Your task to perform on an android device: Open accessibility settings Image 0: 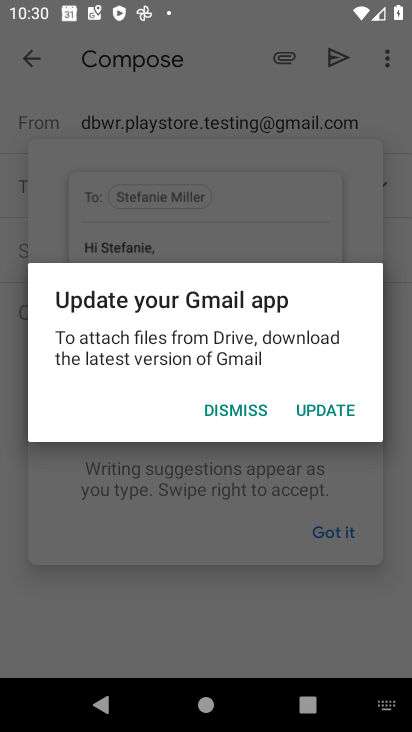
Step 0: press home button
Your task to perform on an android device: Open accessibility settings Image 1: 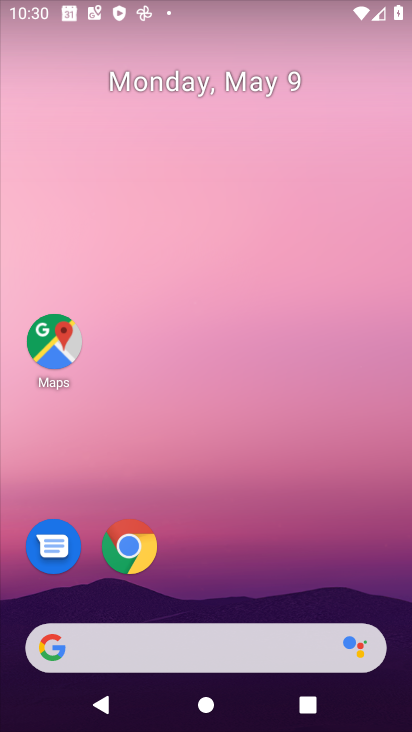
Step 1: drag from (270, 696) to (347, 1)
Your task to perform on an android device: Open accessibility settings Image 2: 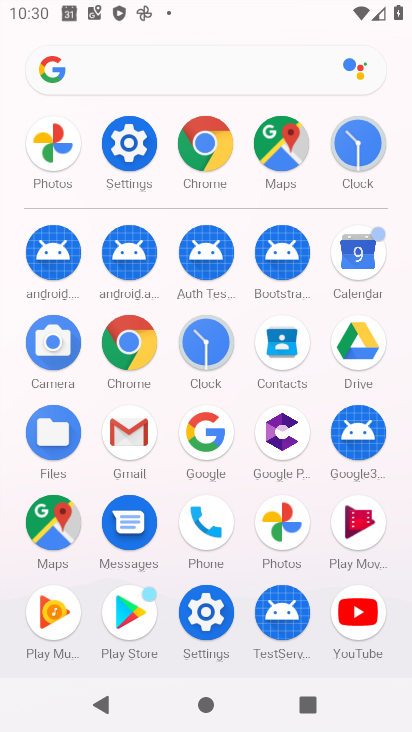
Step 2: click (125, 159)
Your task to perform on an android device: Open accessibility settings Image 3: 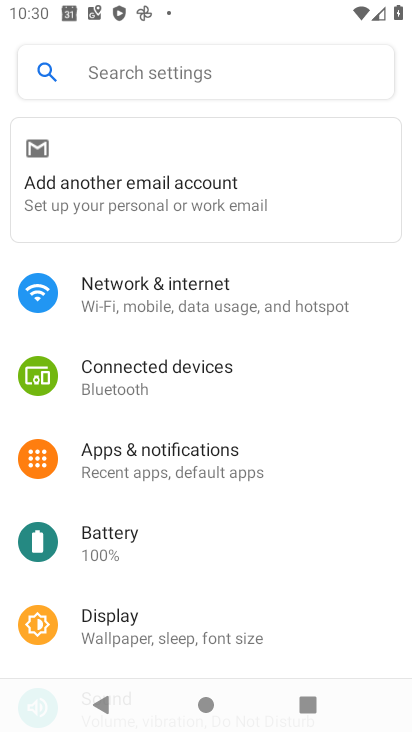
Step 3: drag from (262, 657) to (265, 140)
Your task to perform on an android device: Open accessibility settings Image 4: 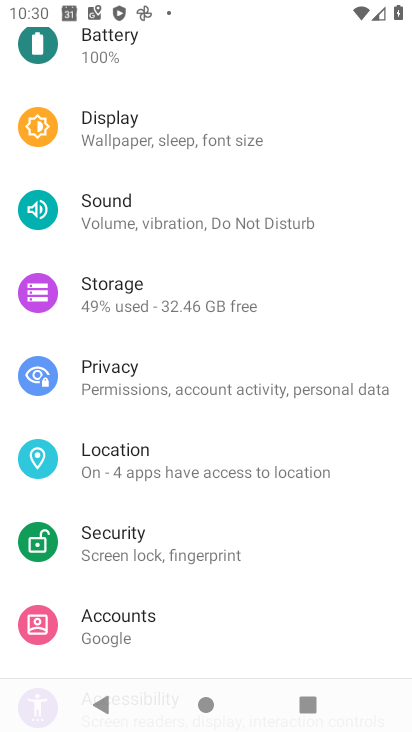
Step 4: drag from (253, 626) to (302, 207)
Your task to perform on an android device: Open accessibility settings Image 5: 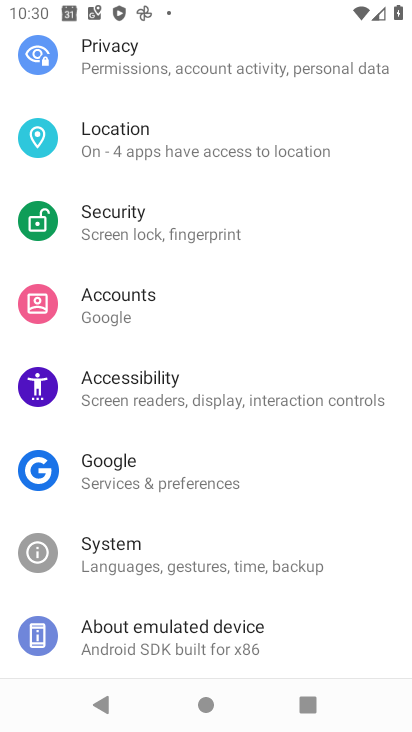
Step 5: click (212, 398)
Your task to perform on an android device: Open accessibility settings Image 6: 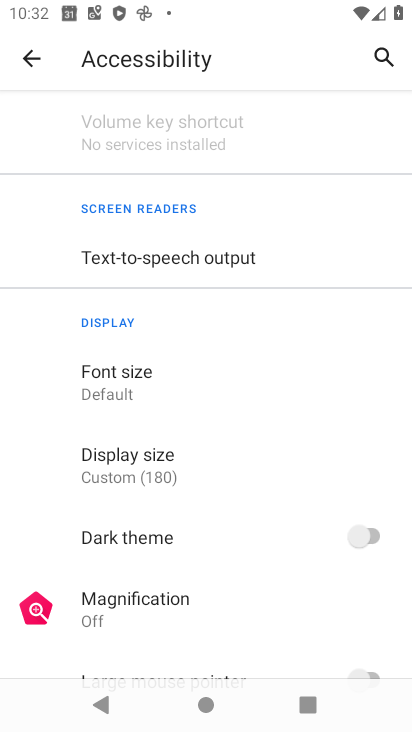
Step 6: task complete